Your task to perform on an android device: turn vacation reply on in the gmail app Image 0: 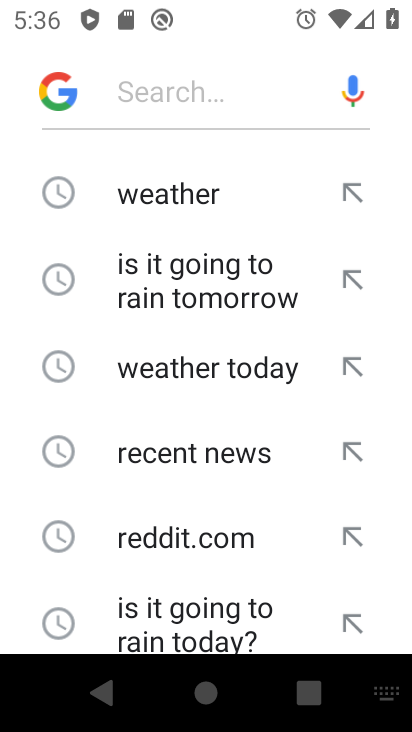
Step 0: press home button
Your task to perform on an android device: turn vacation reply on in the gmail app Image 1: 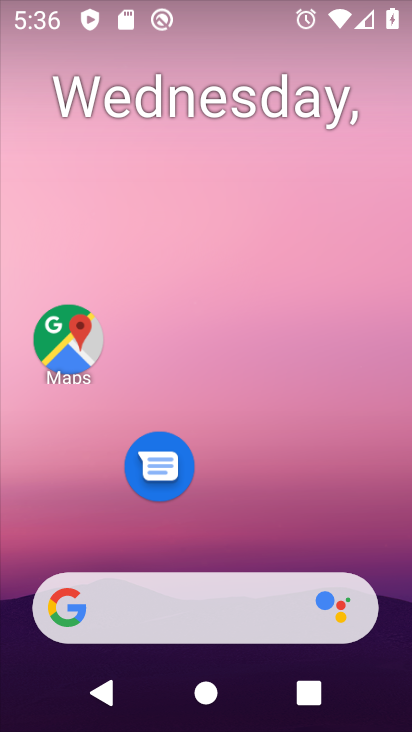
Step 1: drag from (331, 530) to (335, 119)
Your task to perform on an android device: turn vacation reply on in the gmail app Image 2: 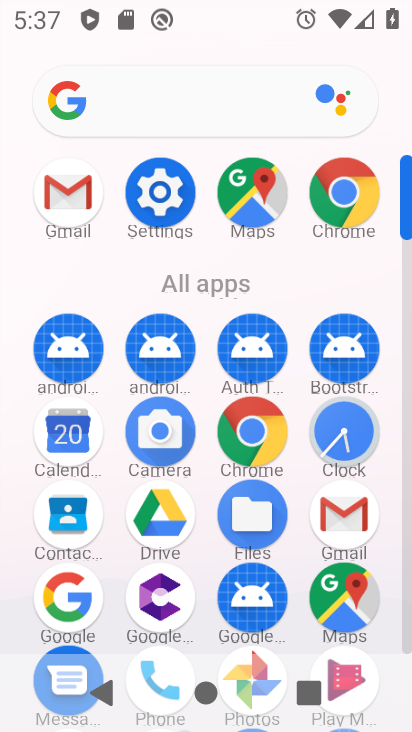
Step 2: click (348, 520)
Your task to perform on an android device: turn vacation reply on in the gmail app Image 3: 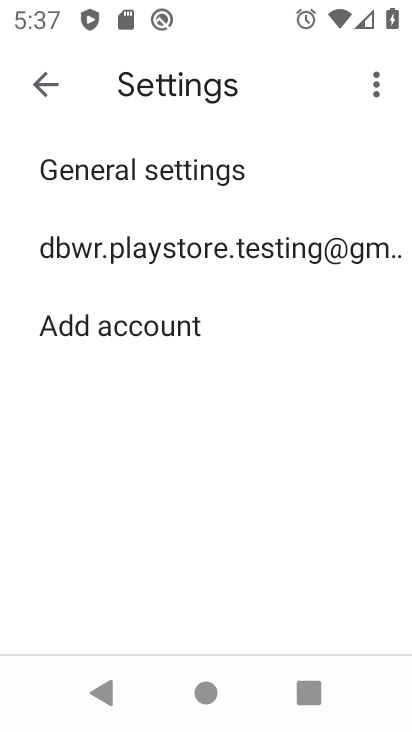
Step 3: click (230, 261)
Your task to perform on an android device: turn vacation reply on in the gmail app Image 4: 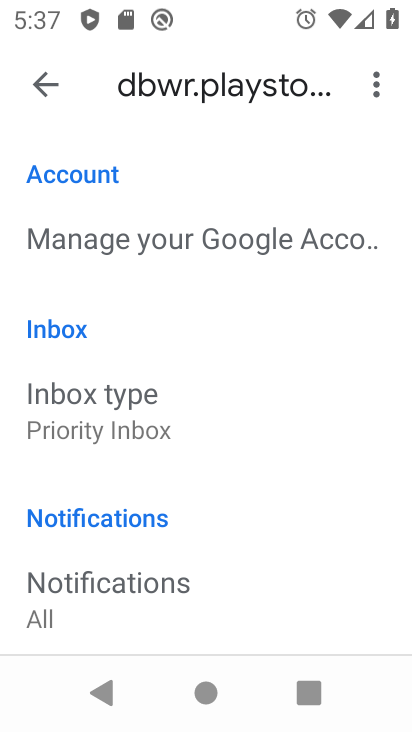
Step 4: drag from (293, 608) to (309, 121)
Your task to perform on an android device: turn vacation reply on in the gmail app Image 5: 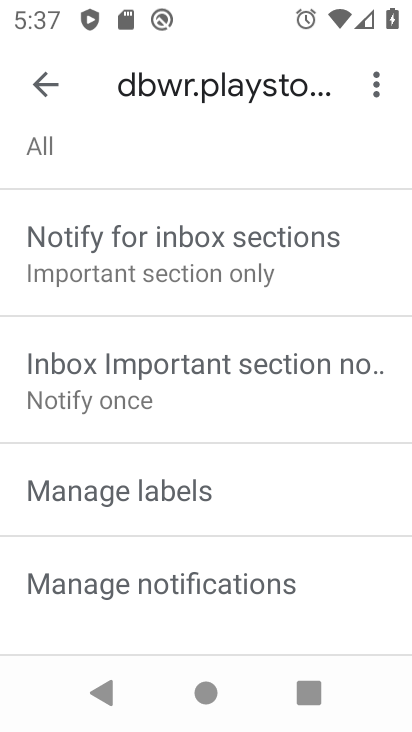
Step 5: drag from (300, 466) to (273, 201)
Your task to perform on an android device: turn vacation reply on in the gmail app Image 6: 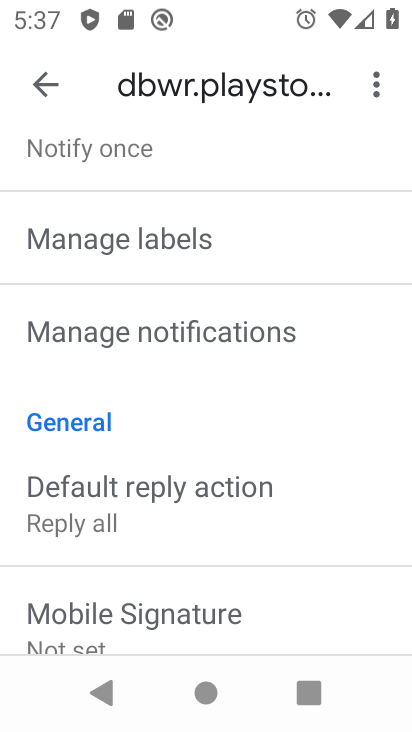
Step 6: drag from (295, 577) to (255, 214)
Your task to perform on an android device: turn vacation reply on in the gmail app Image 7: 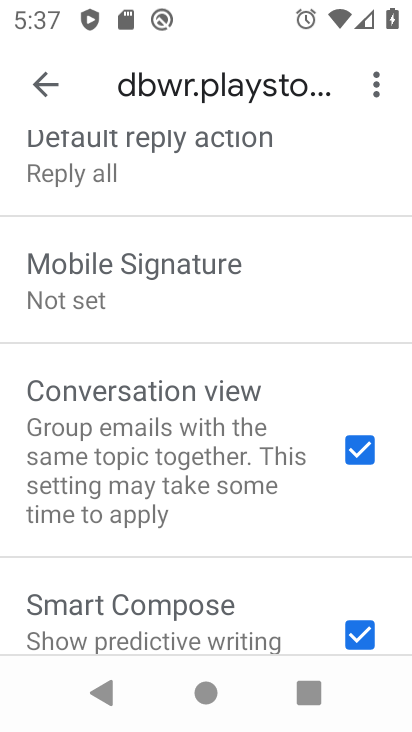
Step 7: drag from (271, 552) to (269, 182)
Your task to perform on an android device: turn vacation reply on in the gmail app Image 8: 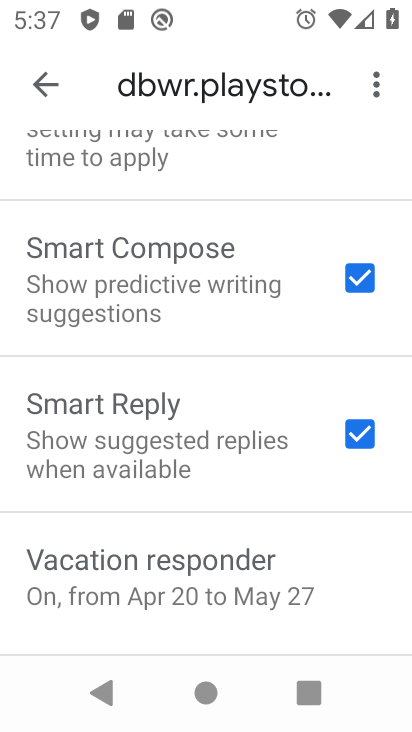
Step 8: click (232, 573)
Your task to perform on an android device: turn vacation reply on in the gmail app Image 9: 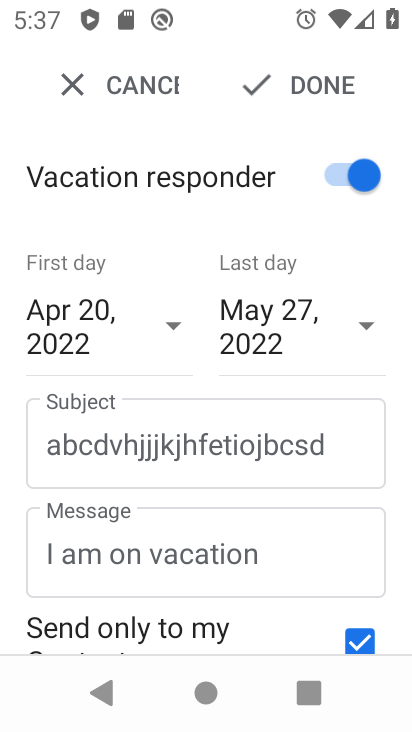
Step 9: task complete